Your task to perform on an android device: Go to internet settings Image 0: 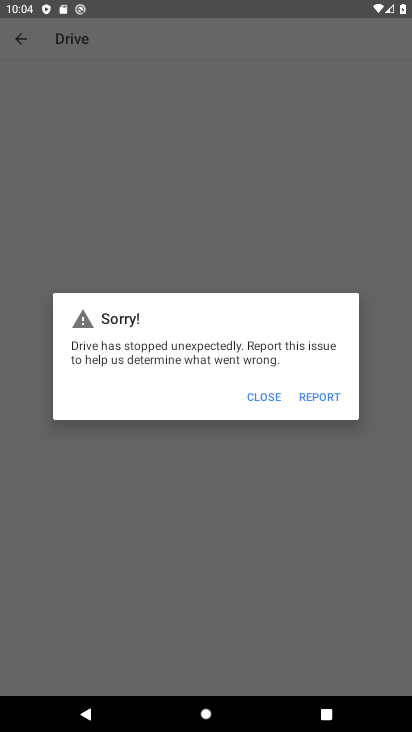
Step 0: press home button
Your task to perform on an android device: Go to internet settings Image 1: 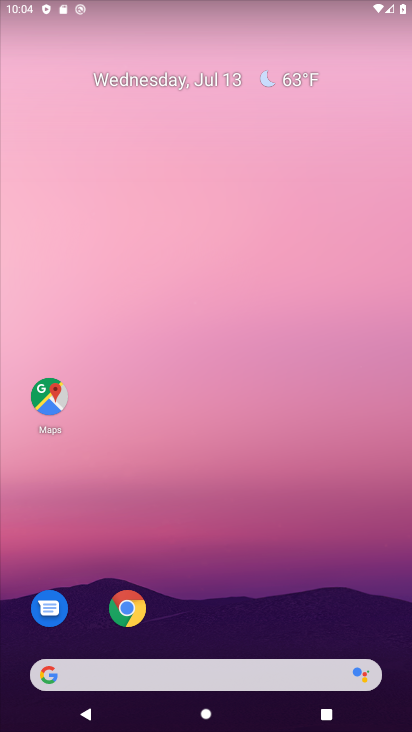
Step 1: drag from (239, 597) to (296, 43)
Your task to perform on an android device: Go to internet settings Image 2: 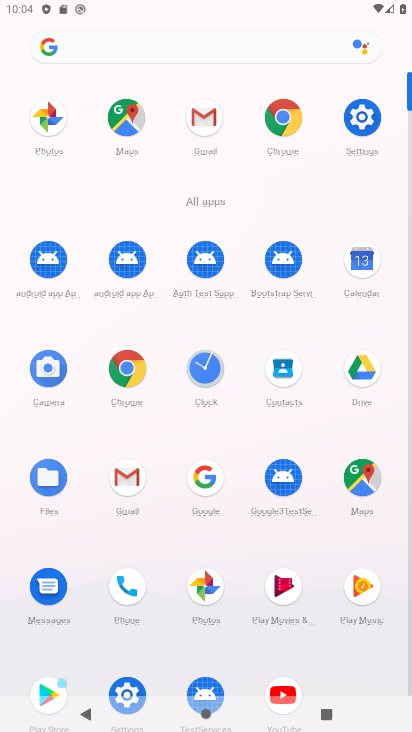
Step 2: click (363, 131)
Your task to perform on an android device: Go to internet settings Image 3: 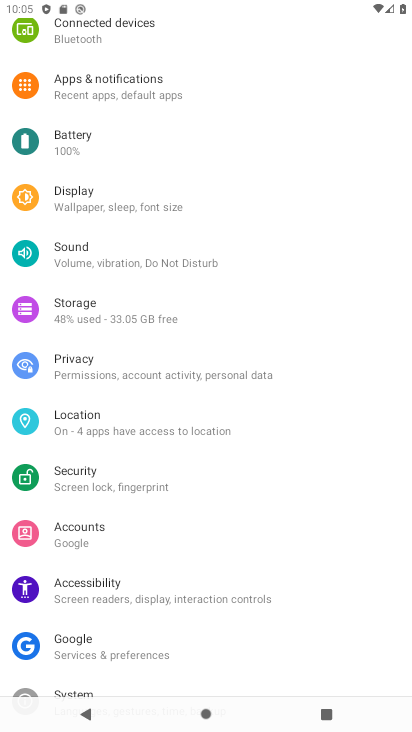
Step 3: drag from (127, 47) to (104, 496)
Your task to perform on an android device: Go to internet settings Image 4: 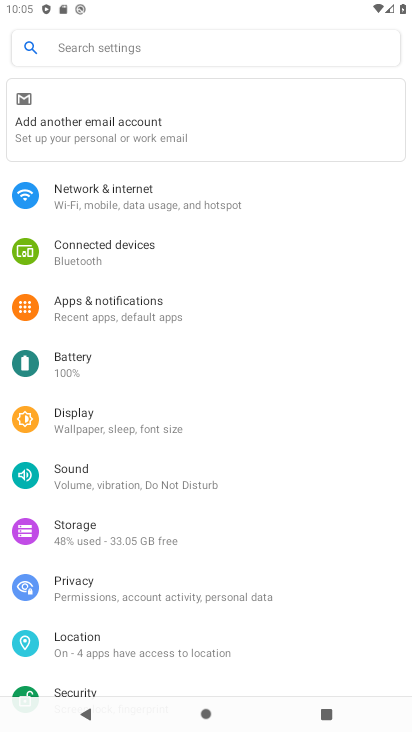
Step 4: click (177, 203)
Your task to perform on an android device: Go to internet settings Image 5: 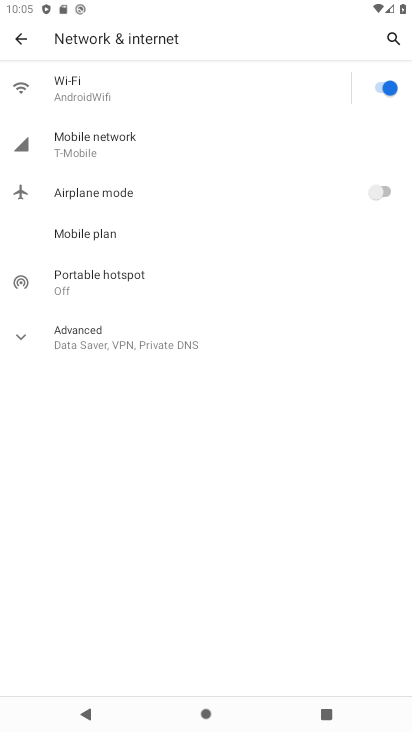
Step 5: task complete